Your task to perform on an android device: Open privacy settings Image 0: 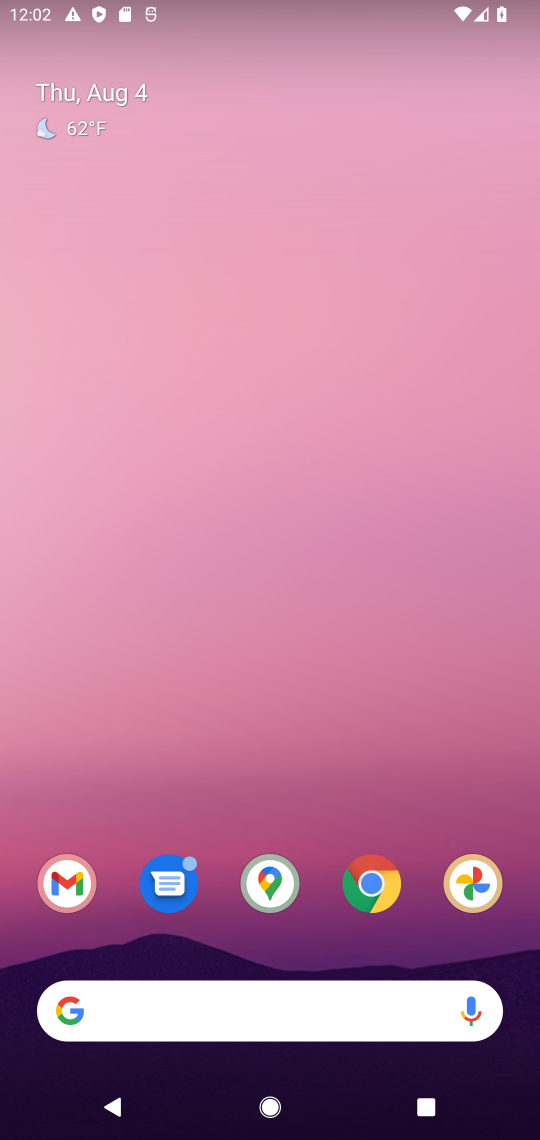
Step 0: drag from (219, 904) to (138, 189)
Your task to perform on an android device: Open privacy settings Image 1: 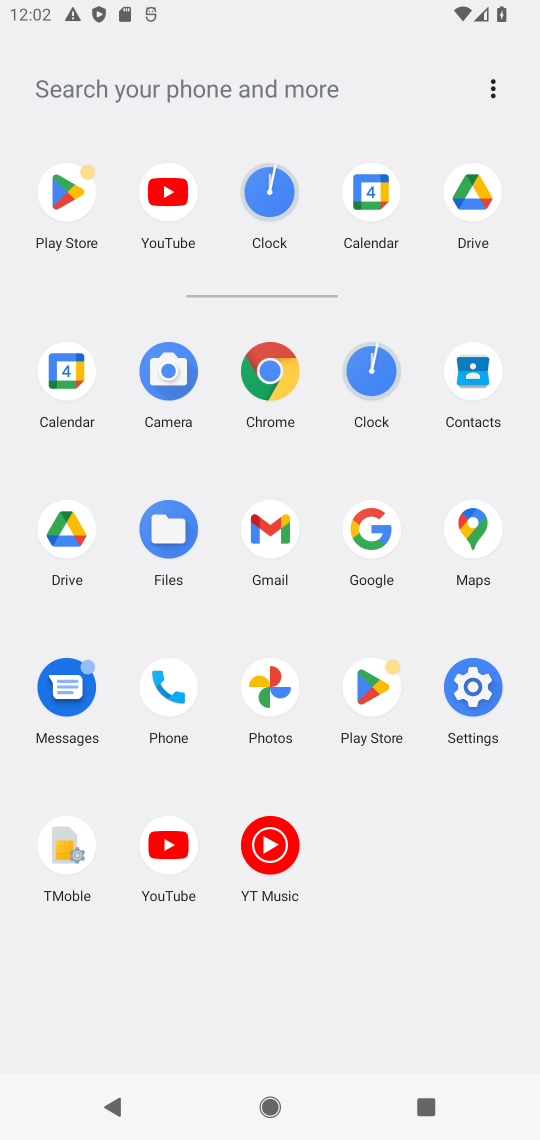
Step 1: click (262, 535)
Your task to perform on an android device: Open privacy settings Image 2: 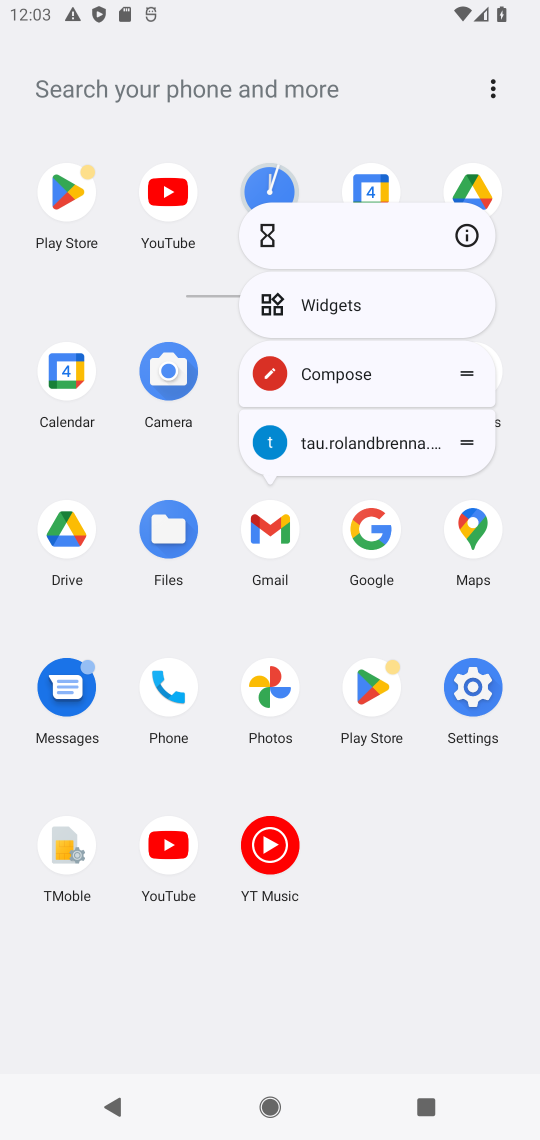
Step 2: drag from (262, 979) to (183, 91)
Your task to perform on an android device: Open privacy settings Image 3: 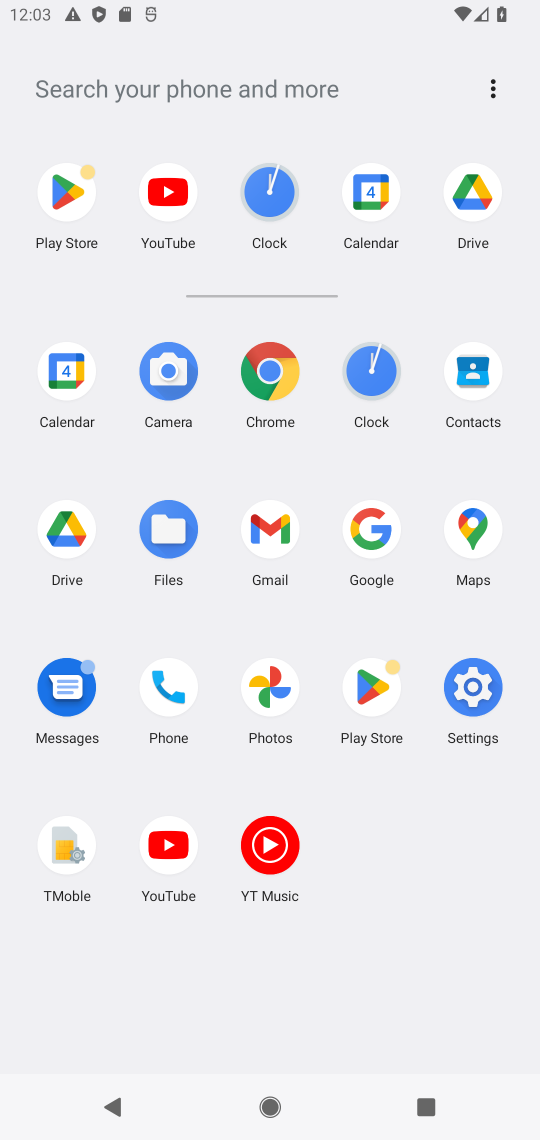
Step 3: click (474, 702)
Your task to perform on an android device: Open privacy settings Image 4: 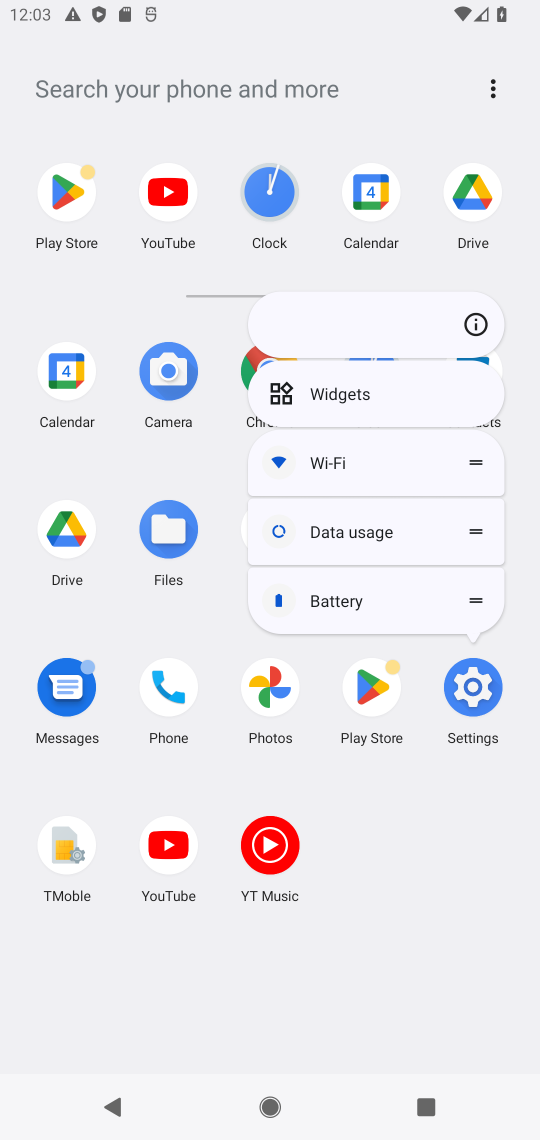
Step 4: click (488, 311)
Your task to perform on an android device: Open privacy settings Image 5: 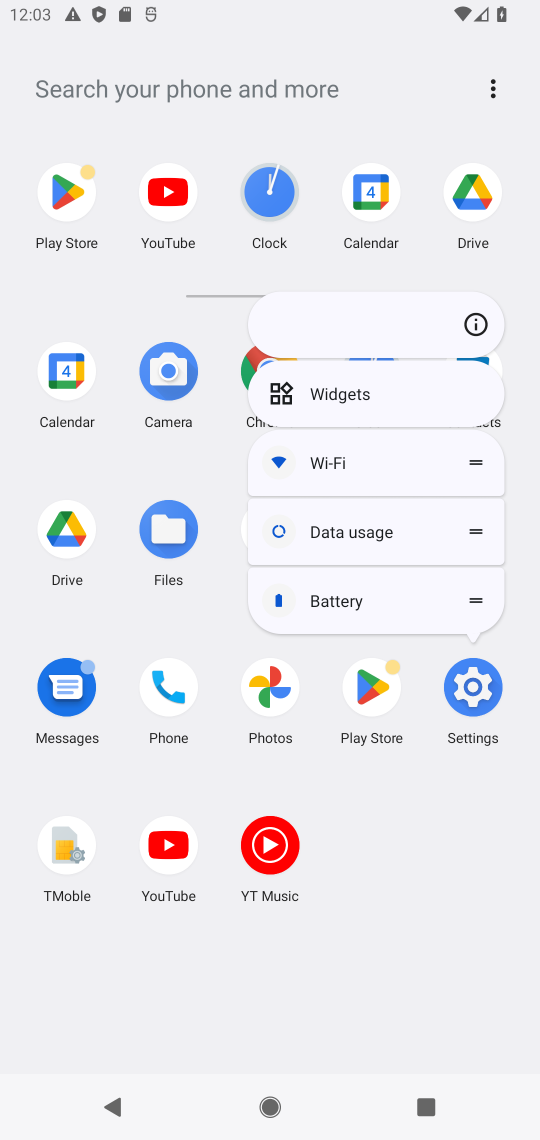
Step 5: click (474, 338)
Your task to perform on an android device: Open privacy settings Image 6: 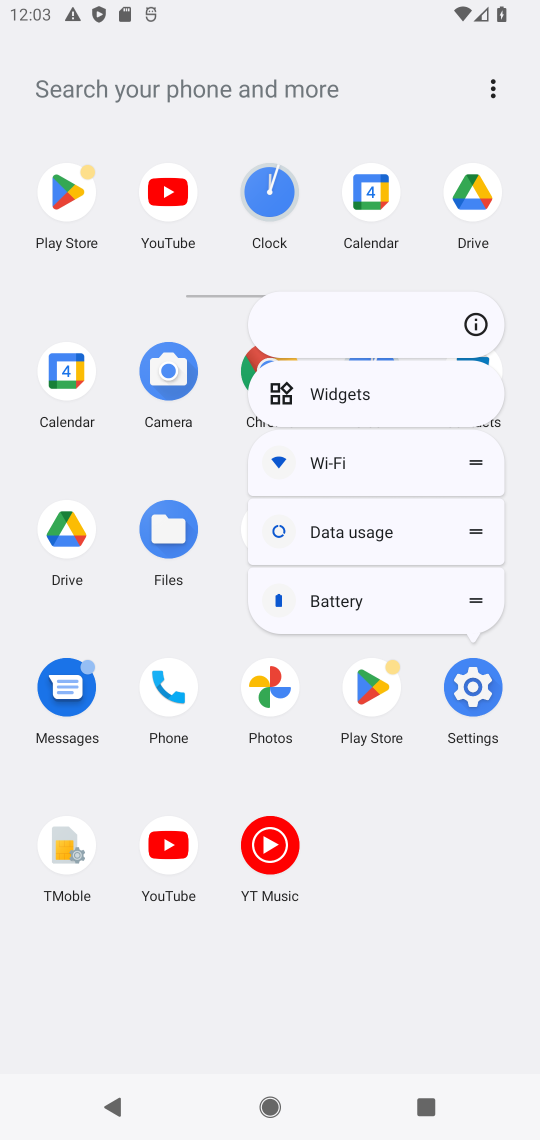
Step 6: click (480, 330)
Your task to perform on an android device: Open privacy settings Image 7: 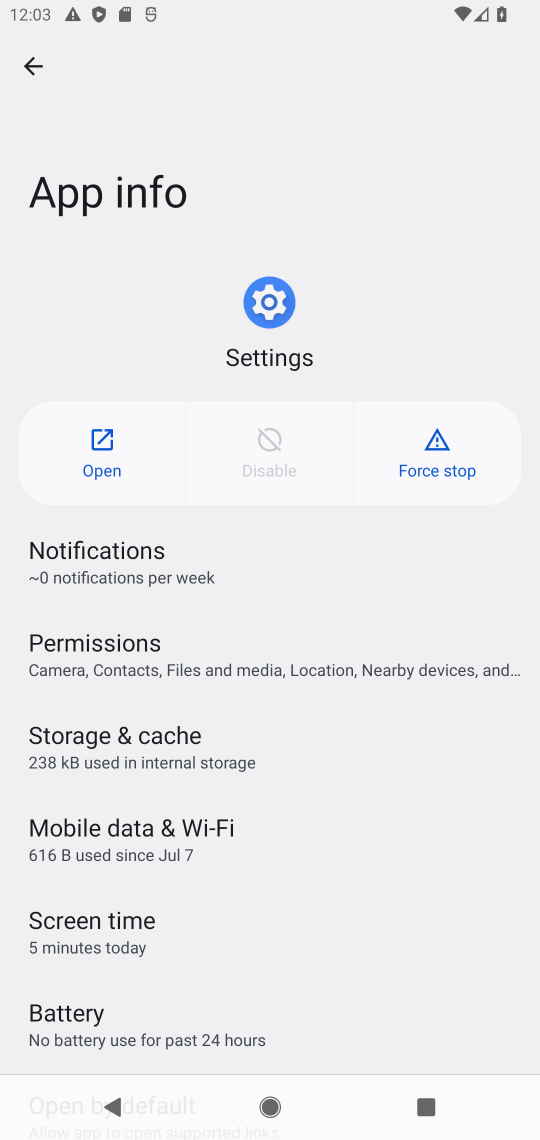
Step 7: click (75, 429)
Your task to perform on an android device: Open privacy settings Image 8: 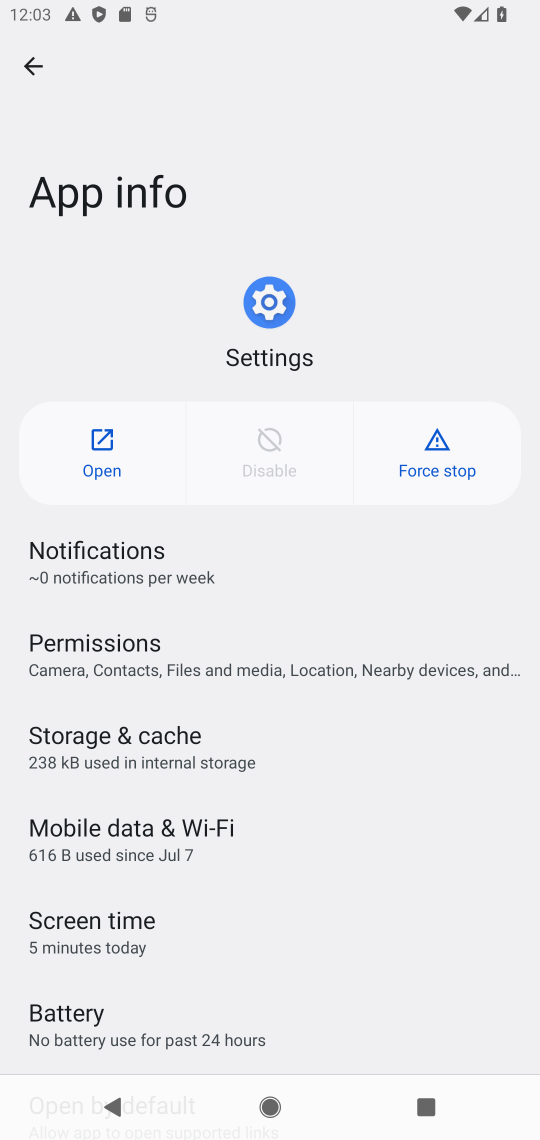
Step 8: click (101, 424)
Your task to perform on an android device: Open privacy settings Image 9: 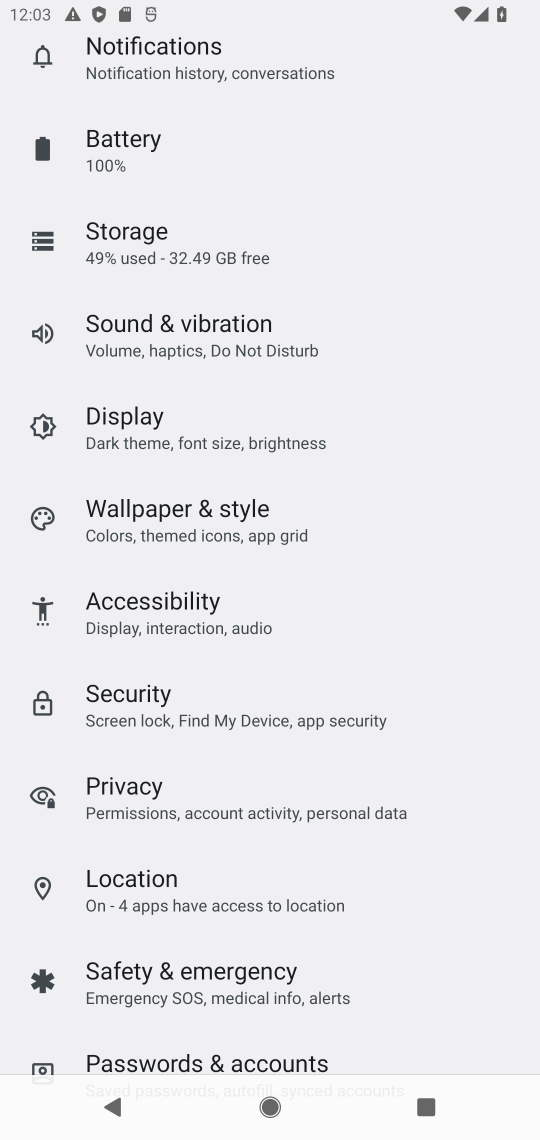
Step 9: click (194, 807)
Your task to perform on an android device: Open privacy settings Image 10: 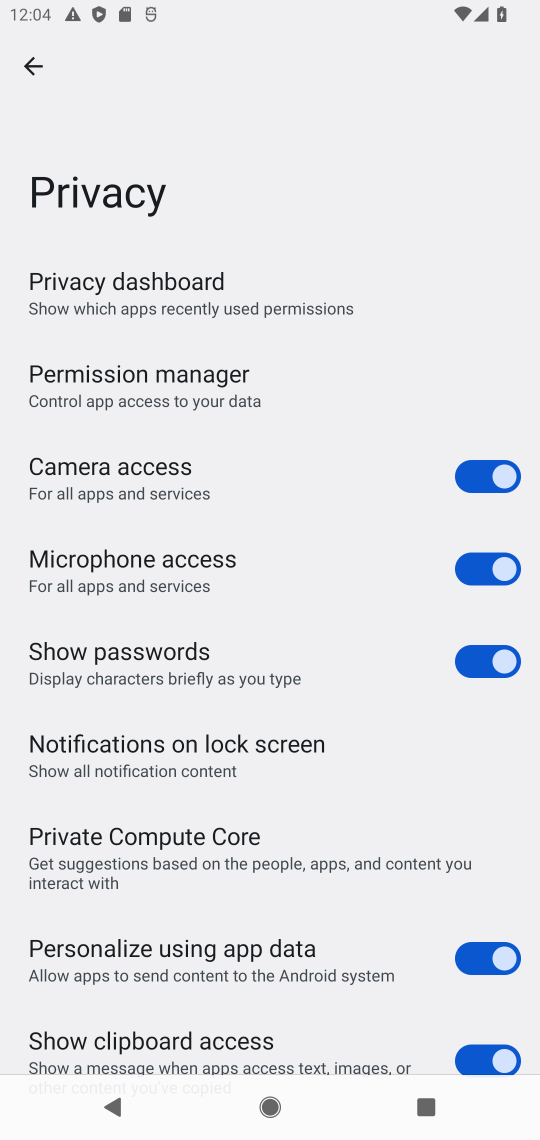
Step 10: task complete